Your task to perform on an android device: Open the calendar app, open the side menu, and click the "Day" option Image 0: 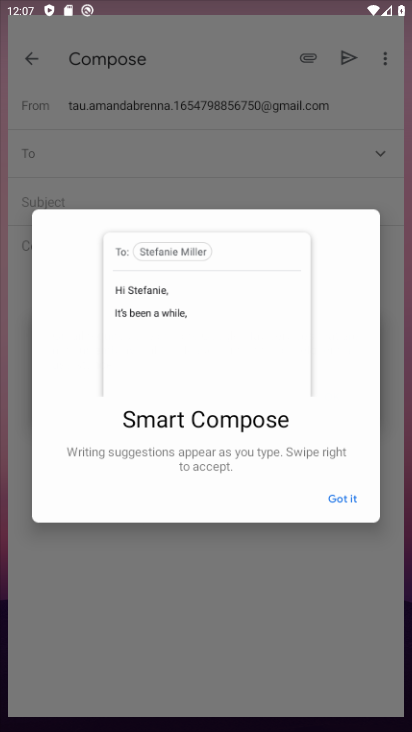
Step 0: drag from (389, 691) to (255, 66)
Your task to perform on an android device: Open the calendar app, open the side menu, and click the "Day" option Image 1: 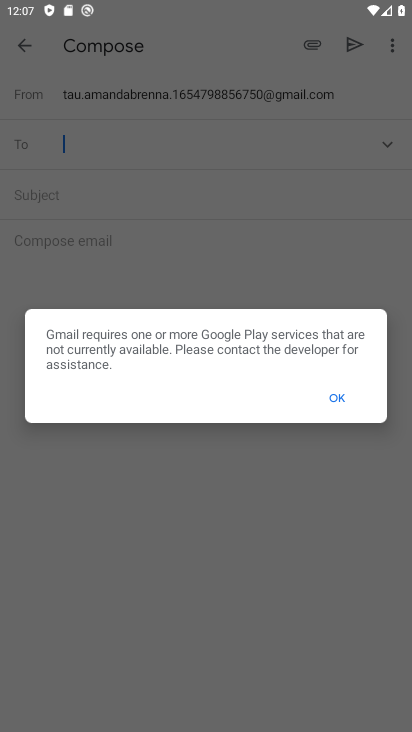
Step 1: press home button
Your task to perform on an android device: Open the calendar app, open the side menu, and click the "Day" option Image 2: 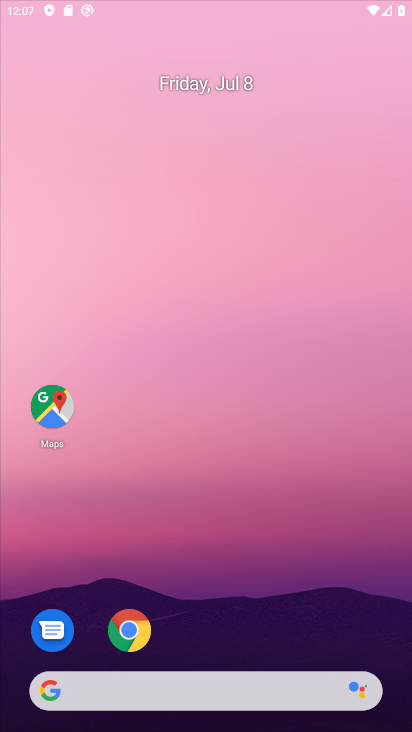
Step 2: drag from (387, 682) to (310, 19)
Your task to perform on an android device: Open the calendar app, open the side menu, and click the "Day" option Image 3: 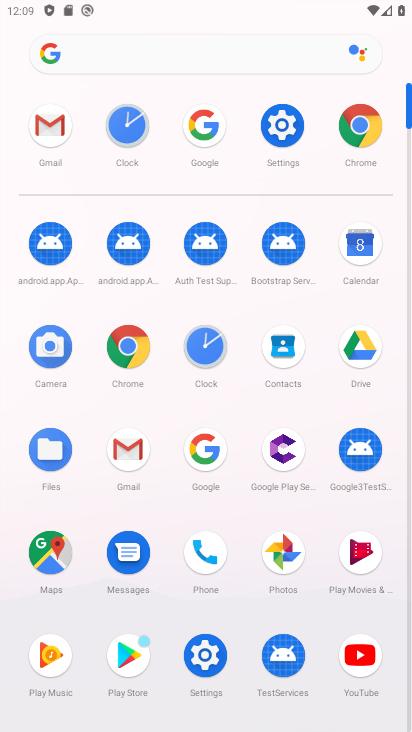
Step 3: click (361, 261)
Your task to perform on an android device: Open the calendar app, open the side menu, and click the "Day" option Image 4: 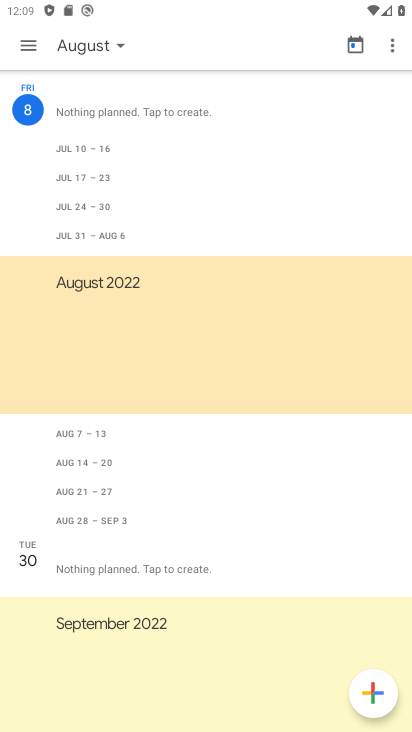
Step 4: click (24, 49)
Your task to perform on an android device: Open the calendar app, open the side menu, and click the "Day" option Image 5: 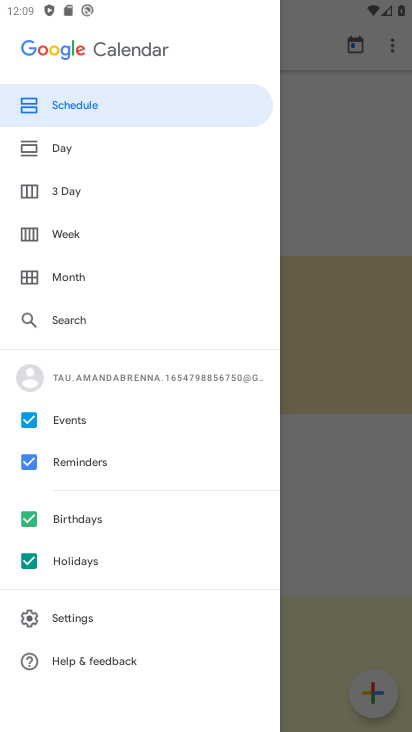
Step 5: click (77, 154)
Your task to perform on an android device: Open the calendar app, open the side menu, and click the "Day" option Image 6: 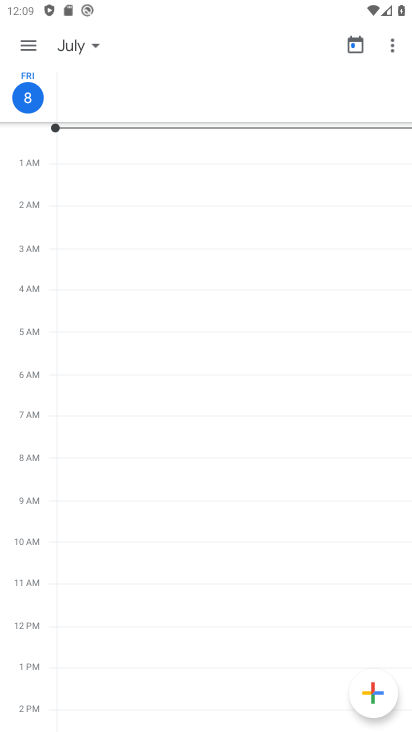
Step 6: task complete